Your task to perform on an android device: turn notification dots off Image 0: 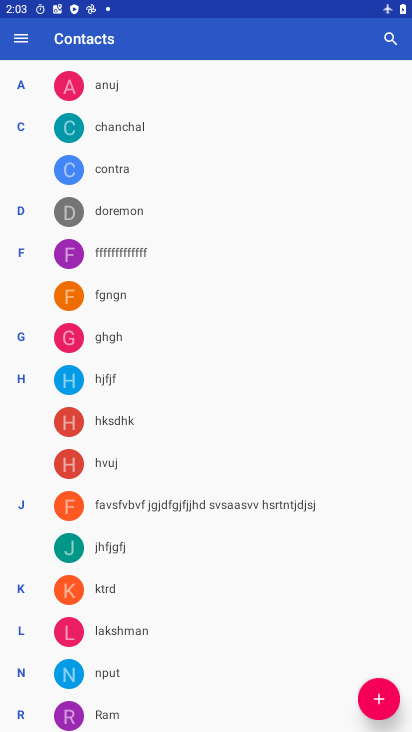
Step 0: press home button
Your task to perform on an android device: turn notification dots off Image 1: 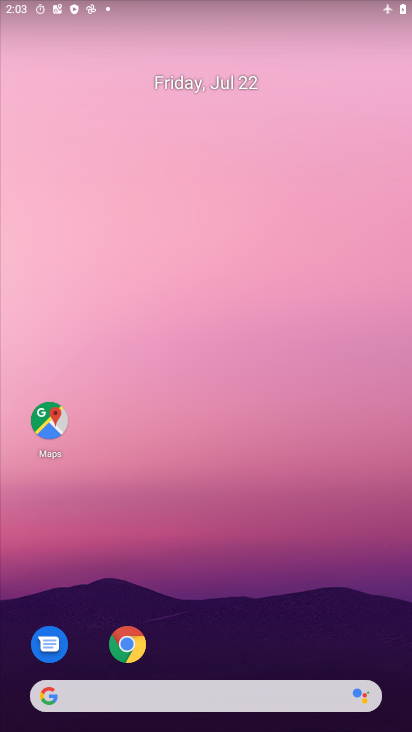
Step 1: drag from (238, 641) to (229, 124)
Your task to perform on an android device: turn notification dots off Image 2: 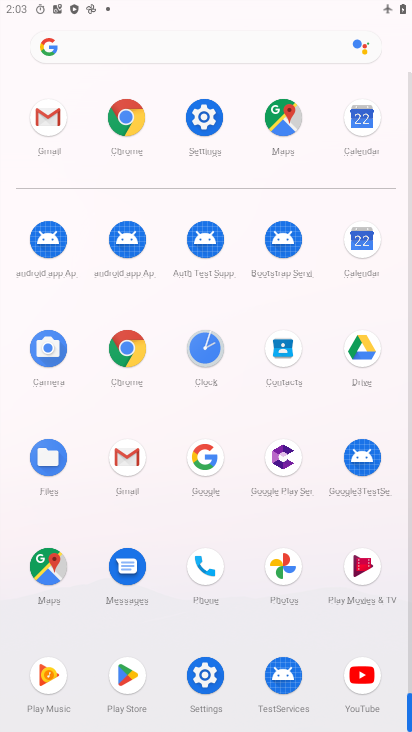
Step 2: click (204, 134)
Your task to perform on an android device: turn notification dots off Image 3: 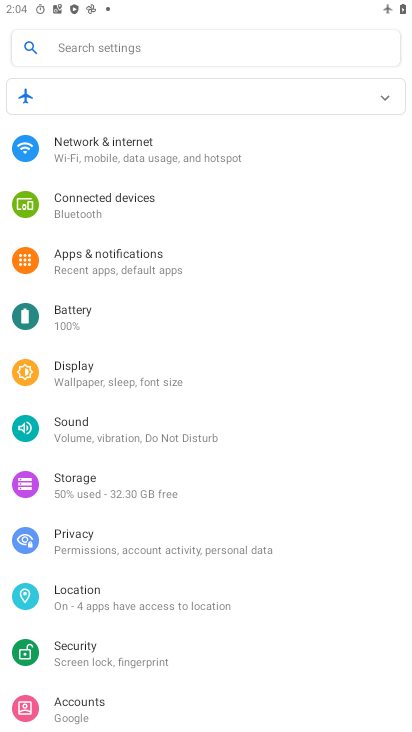
Step 3: click (166, 259)
Your task to perform on an android device: turn notification dots off Image 4: 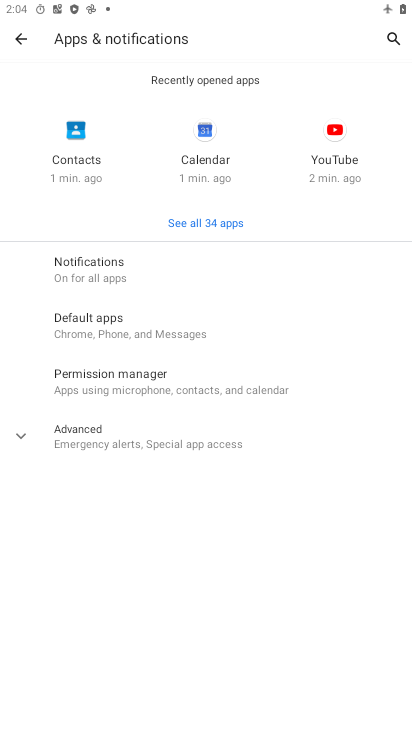
Step 4: click (136, 263)
Your task to perform on an android device: turn notification dots off Image 5: 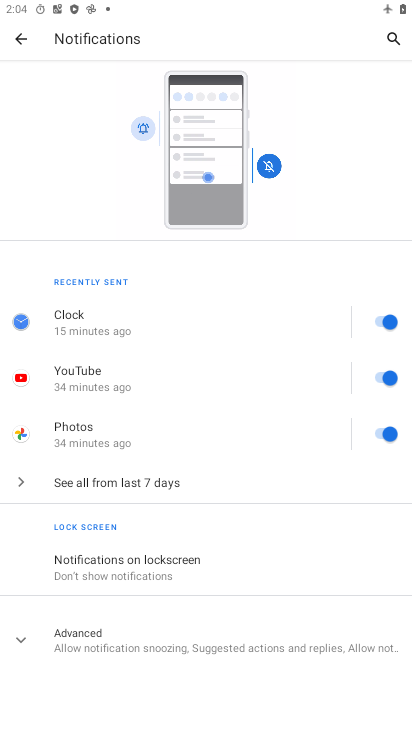
Step 5: click (148, 639)
Your task to perform on an android device: turn notification dots off Image 6: 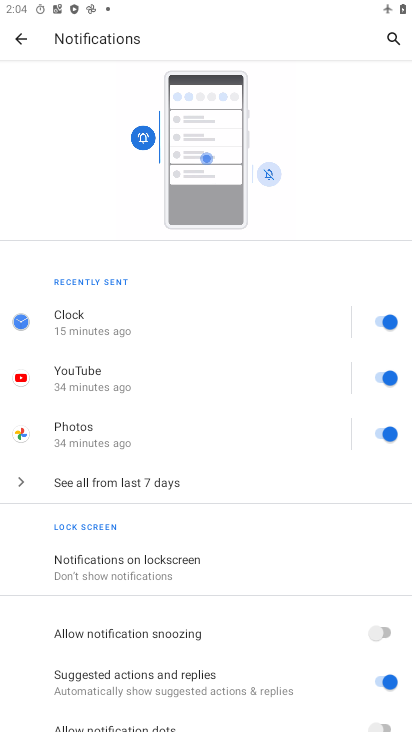
Step 6: task complete